Your task to perform on an android device: Is it going to rain today? Image 0: 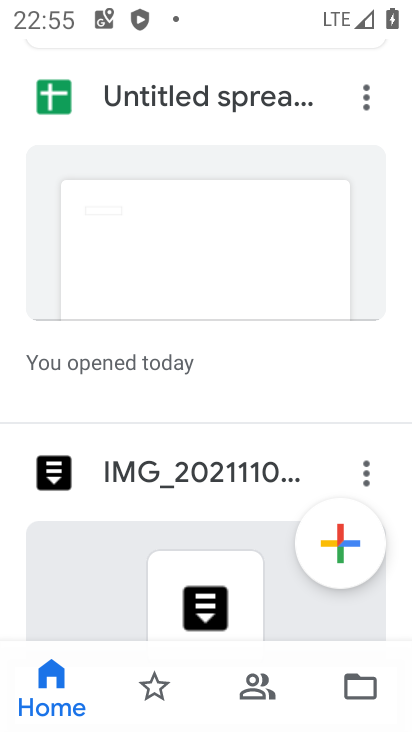
Step 0: press home button
Your task to perform on an android device: Is it going to rain today? Image 1: 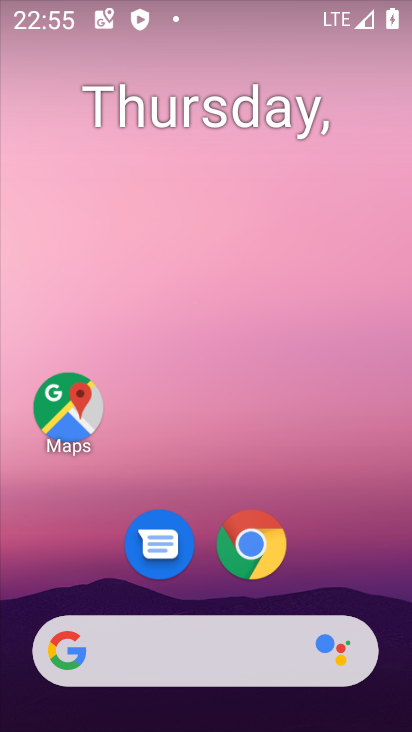
Step 1: click (279, 564)
Your task to perform on an android device: Is it going to rain today? Image 2: 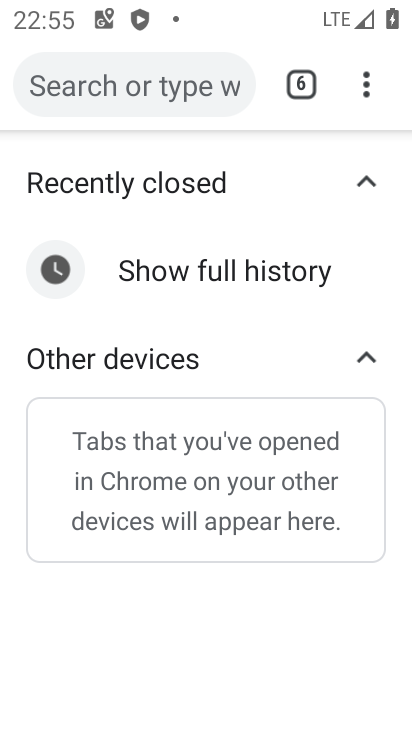
Step 2: click (297, 87)
Your task to perform on an android device: Is it going to rain today? Image 3: 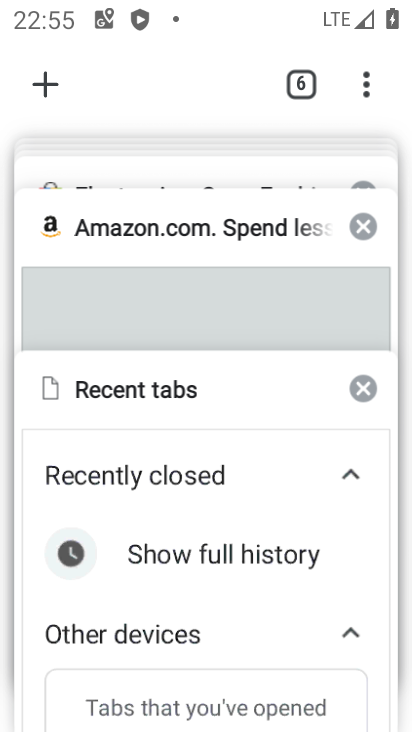
Step 3: click (43, 83)
Your task to perform on an android device: Is it going to rain today? Image 4: 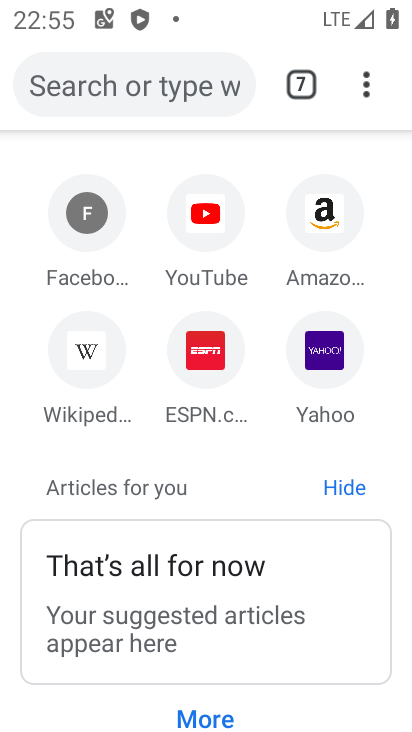
Step 4: click (168, 84)
Your task to perform on an android device: Is it going to rain today? Image 5: 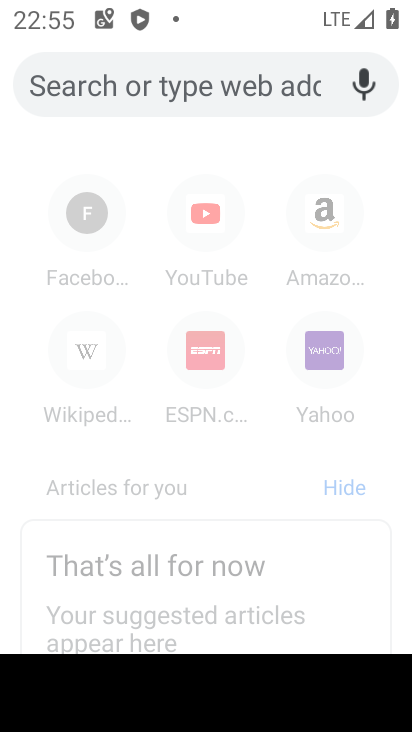
Step 5: type "is it going to rain today"
Your task to perform on an android device: Is it going to rain today? Image 6: 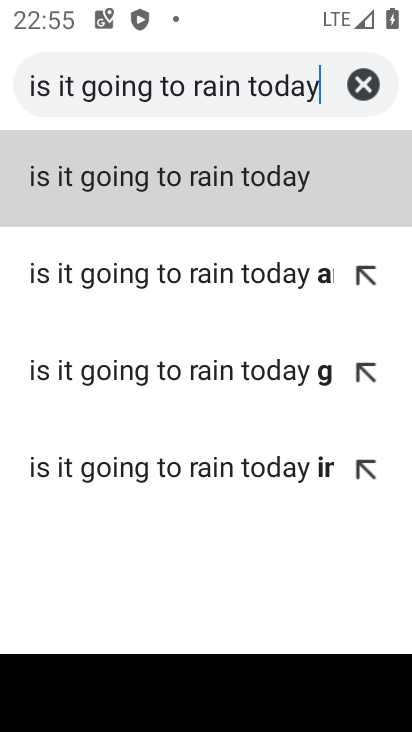
Step 6: click (70, 181)
Your task to perform on an android device: Is it going to rain today? Image 7: 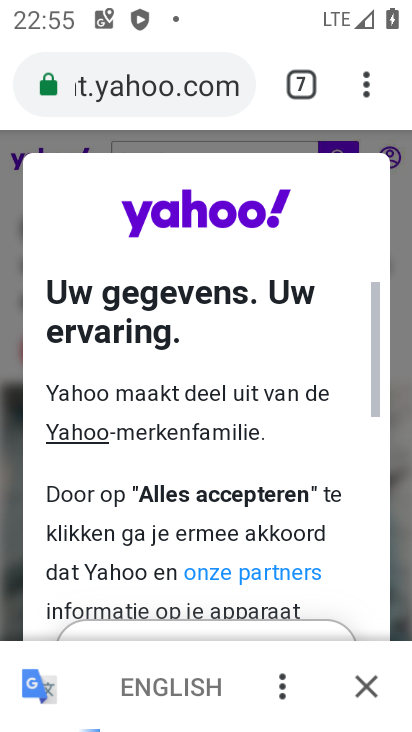
Step 7: click (247, 633)
Your task to perform on an android device: Is it going to rain today? Image 8: 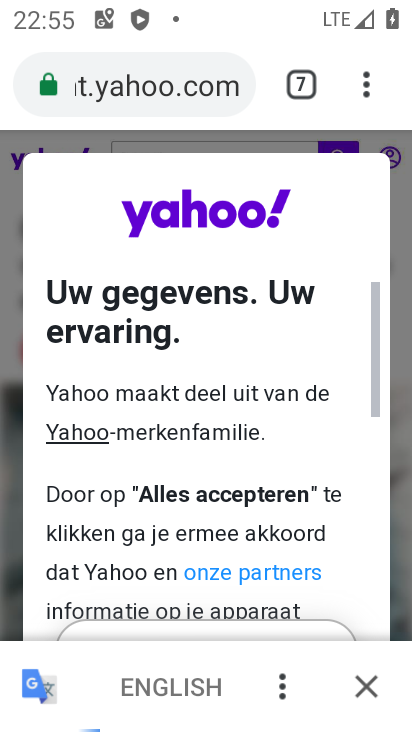
Step 8: click (163, 685)
Your task to perform on an android device: Is it going to rain today? Image 9: 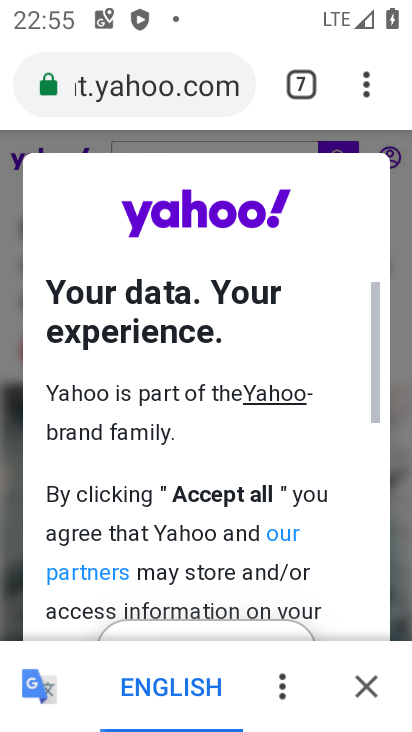
Step 9: drag from (205, 623) to (226, 248)
Your task to perform on an android device: Is it going to rain today? Image 10: 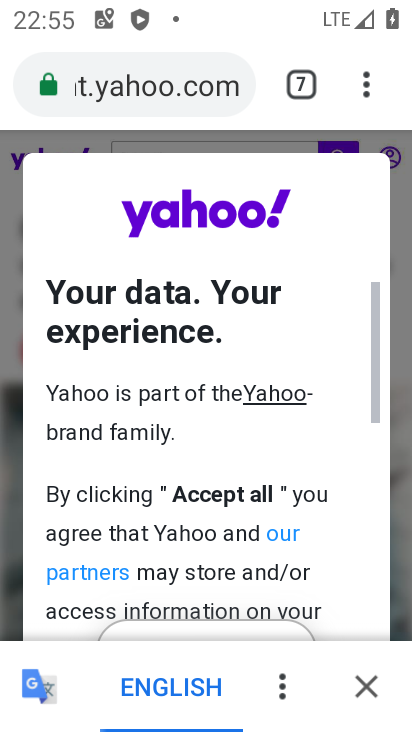
Step 10: click (366, 687)
Your task to perform on an android device: Is it going to rain today? Image 11: 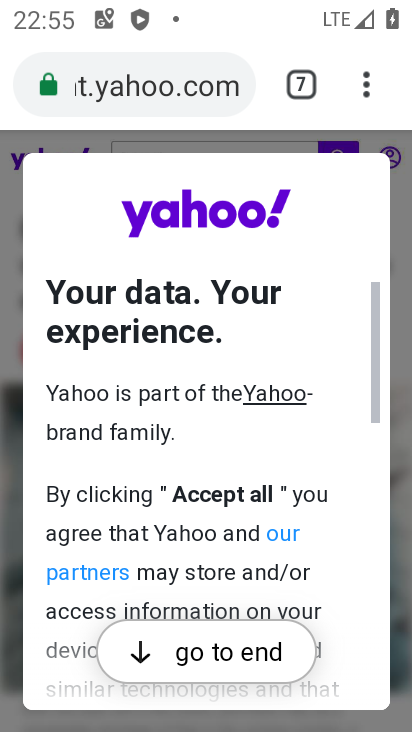
Step 11: click (208, 655)
Your task to perform on an android device: Is it going to rain today? Image 12: 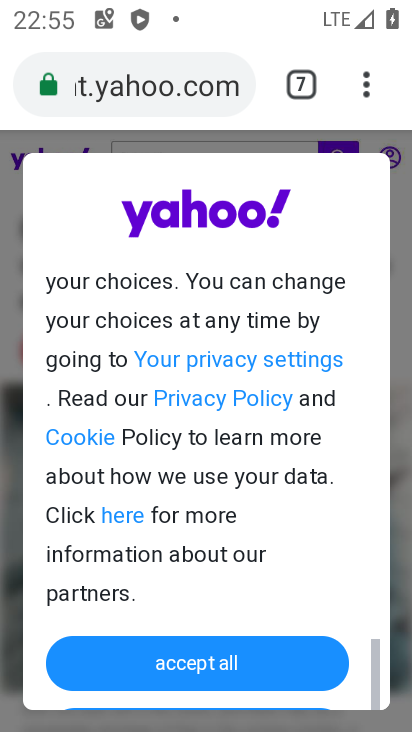
Step 12: click (179, 662)
Your task to perform on an android device: Is it going to rain today? Image 13: 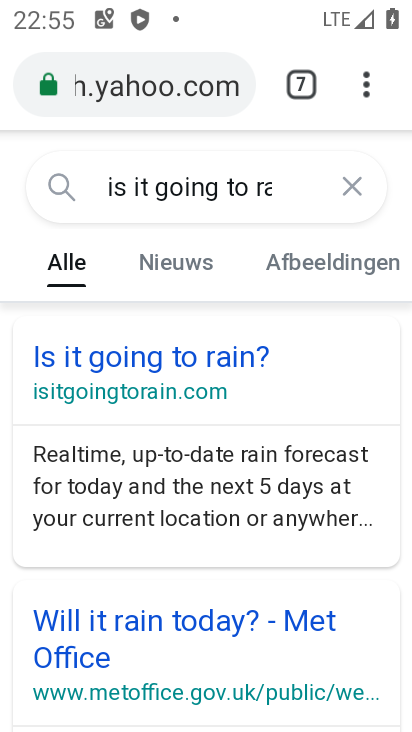
Step 13: task complete